Your task to perform on an android device: What's the price of the Samsung TV? Image 0: 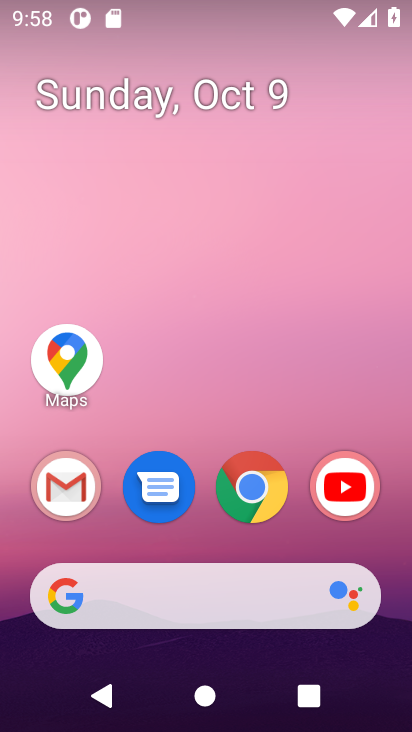
Step 0: click (254, 493)
Your task to perform on an android device: What's the price of the Samsung TV? Image 1: 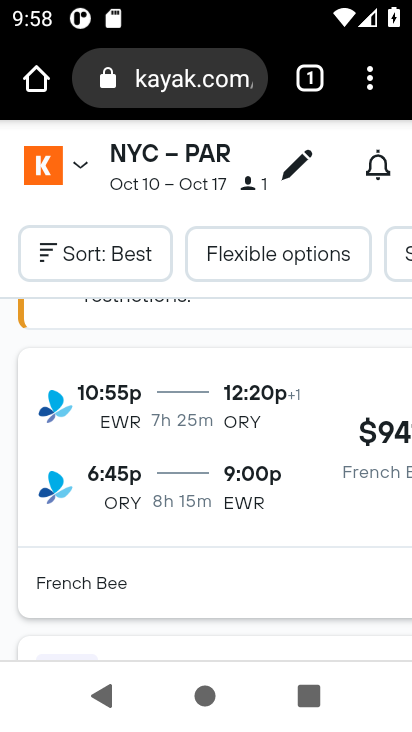
Step 1: click (174, 91)
Your task to perform on an android device: What's the price of the Samsung TV? Image 2: 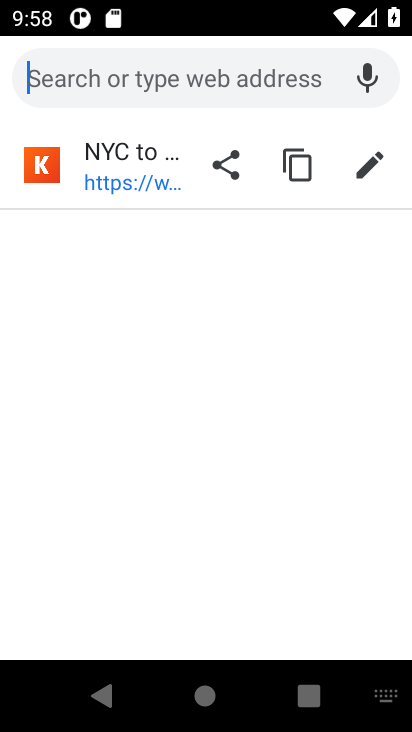
Step 2: type "samsung tv price"
Your task to perform on an android device: What's the price of the Samsung TV? Image 3: 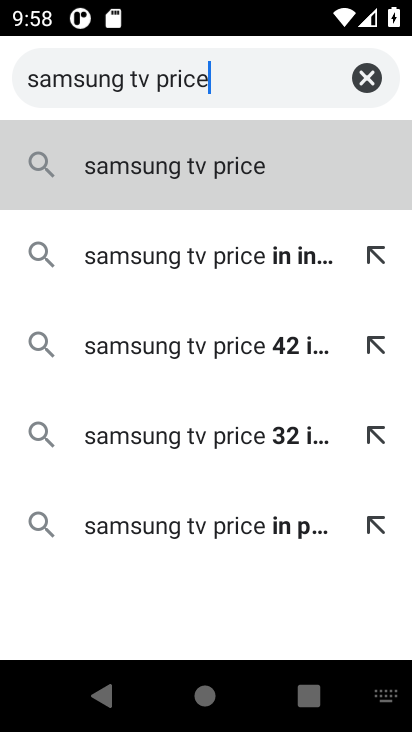
Step 3: type ""
Your task to perform on an android device: What's the price of the Samsung TV? Image 4: 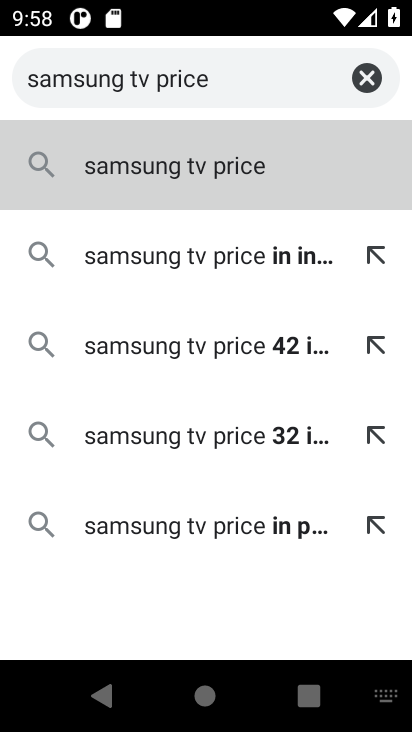
Step 4: press enter
Your task to perform on an android device: What's the price of the Samsung TV? Image 5: 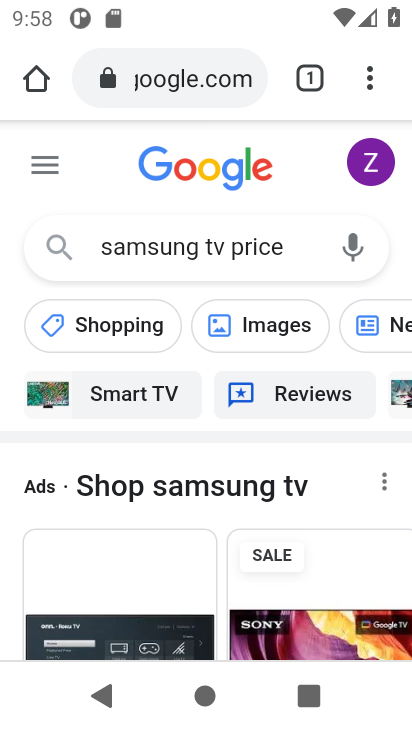
Step 5: task complete